Your task to perform on an android device: turn on data saver in the chrome app Image 0: 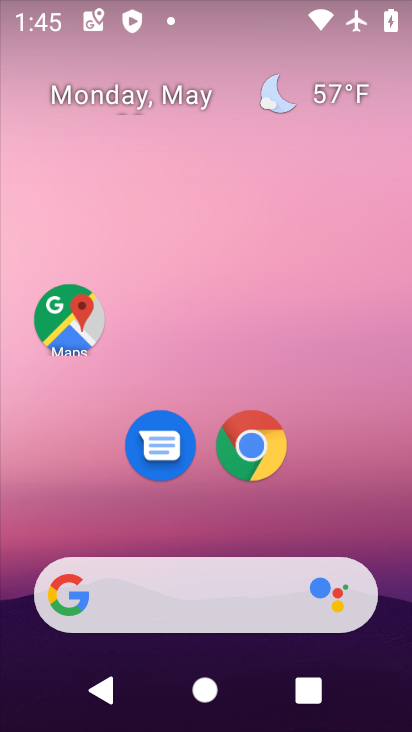
Step 0: click (245, 449)
Your task to perform on an android device: turn on data saver in the chrome app Image 1: 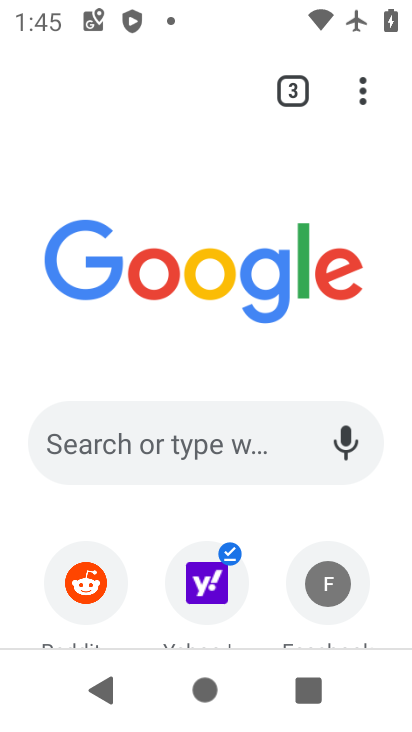
Step 1: click (355, 87)
Your task to perform on an android device: turn on data saver in the chrome app Image 2: 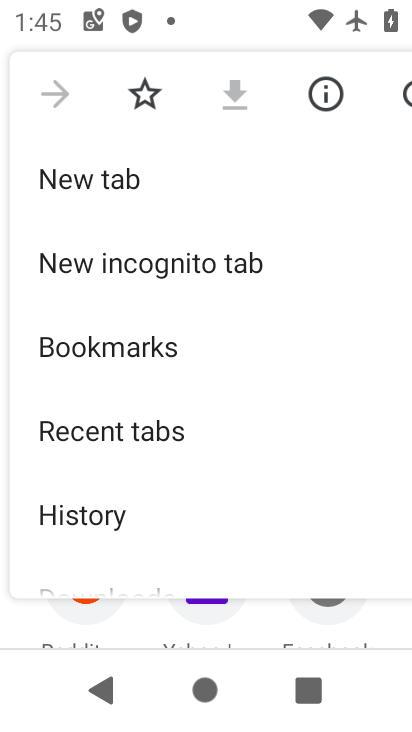
Step 2: drag from (231, 514) to (249, 158)
Your task to perform on an android device: turn on data saver in the chrome app Image 3: 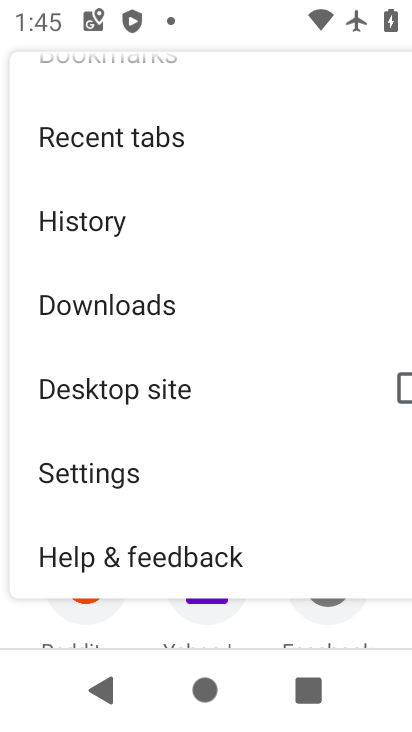
Step 3: click (97, 470)
Your task to perform on an android device: turn on data saver in the chrome app Image 4: 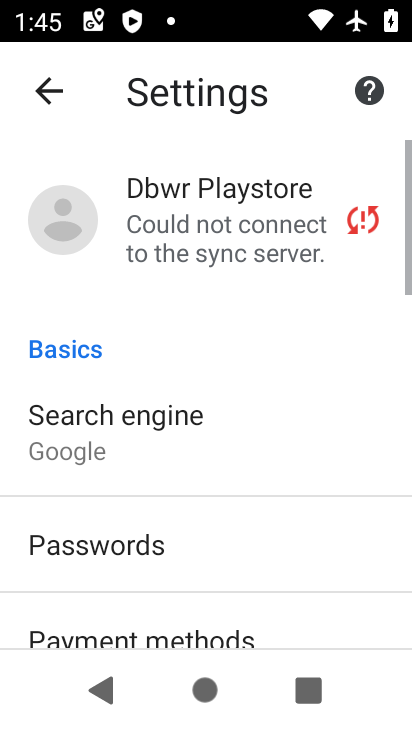
Step 4: drag from (226, 498) to (241, 79)
Your task to perform on an android device: turn on data saver in the chrome app Image 5: 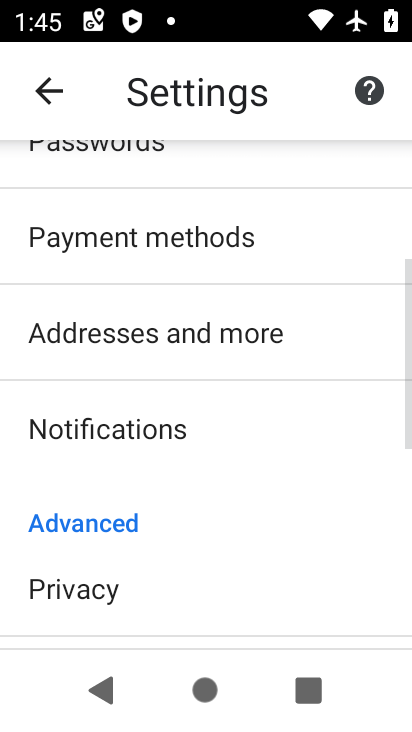
Step 5: drag from (214, 608) to (206, 209)
Your task to perform on an android device: turn on data saver in the chrome app Image 6: 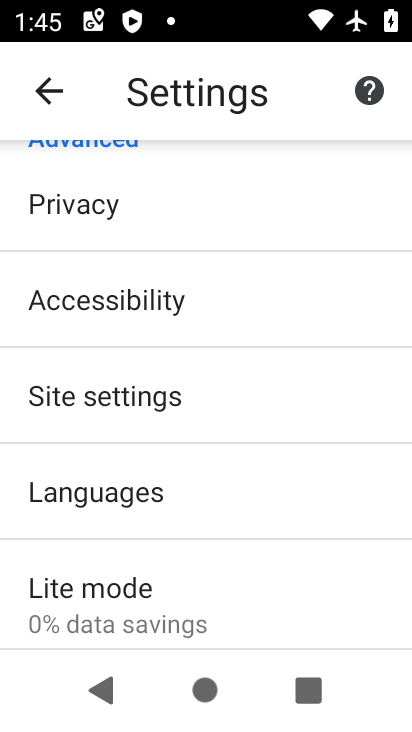
Step 6: click (142, 602)
Your task to perform on an android device: turn on data saver in the chrome app Image 7: 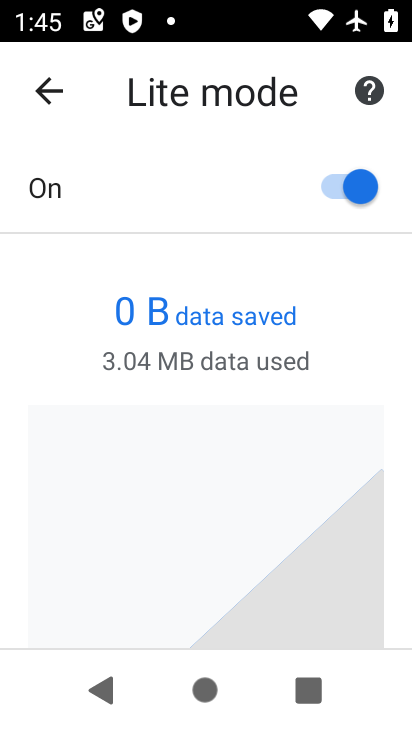
Step 7: task complete